Your task to perform on an android device: change timer sound Image 0: 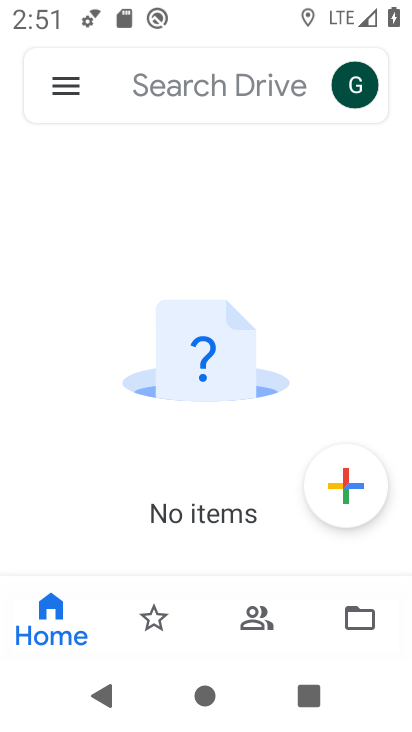
Step 0: press home button
Your task to perform on an android device: change timer sound Image 1: 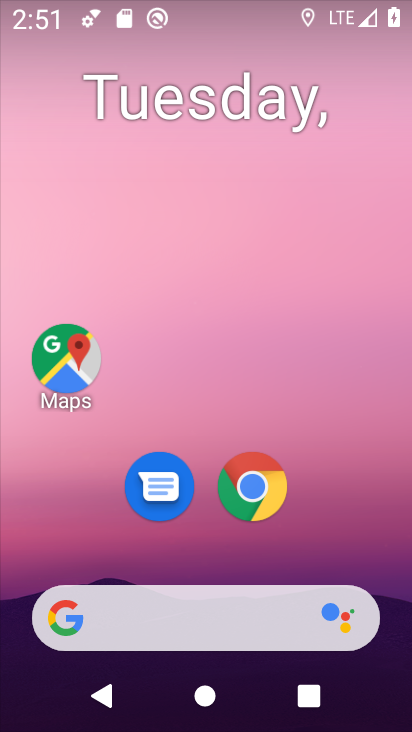
Step 1: drag from (358, 523) to (379, 72)
Your task to perform on an android device: change timer sound Image 2: 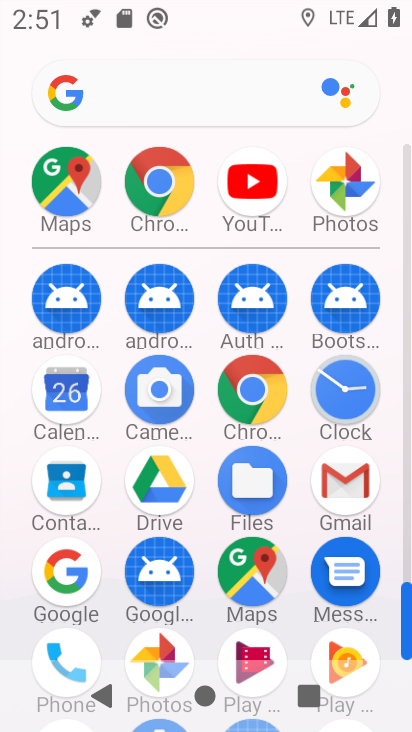
Step 2: drag from (401, 441) to (407, 302)
Your task to perform on an android device: change timer sound Image 3: 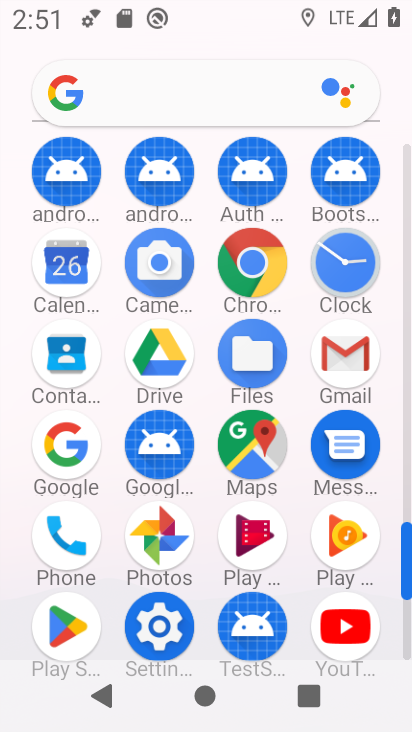
Step 3: drag from (396, 279) to (395, 368)
Your task to perform on an android device: change timer sound Image 4: 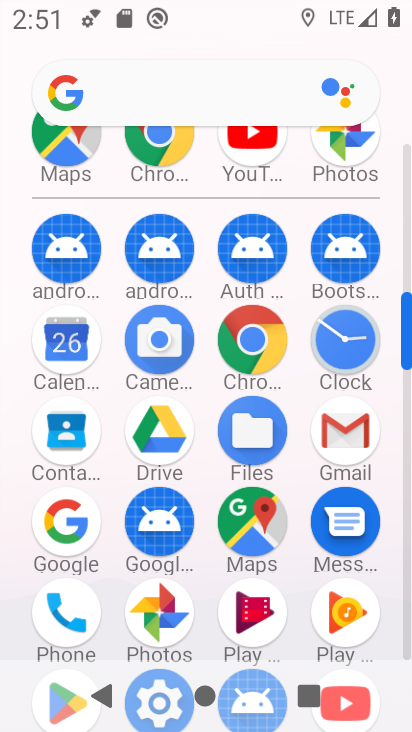
Step 4: drag from (398, 215) to (396, 321)
Your task to perform on an android device: change timer sound Image 5: 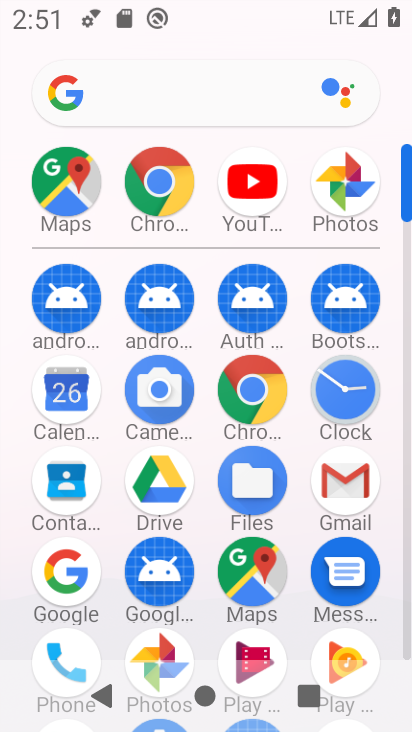
Step 5: drag from (393, 477) to (397, 363)
Your task to perform on an android device: change timer sound Image 6: 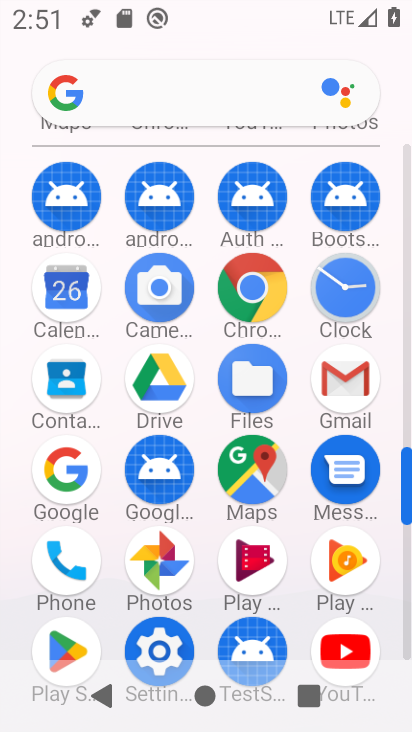
Step 6: drag from (388, 395) to (400, 342)
Your task to perform on an android device: change timer sound Image 7: 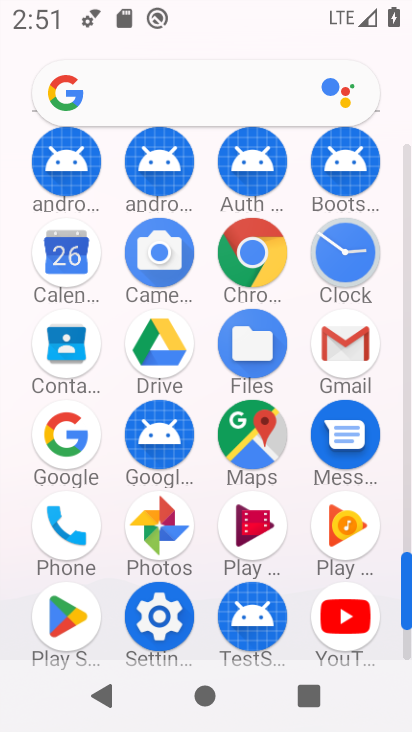
Step 7: click (346, 282)
Your task to perform on an android device: change timer sound Image 8: 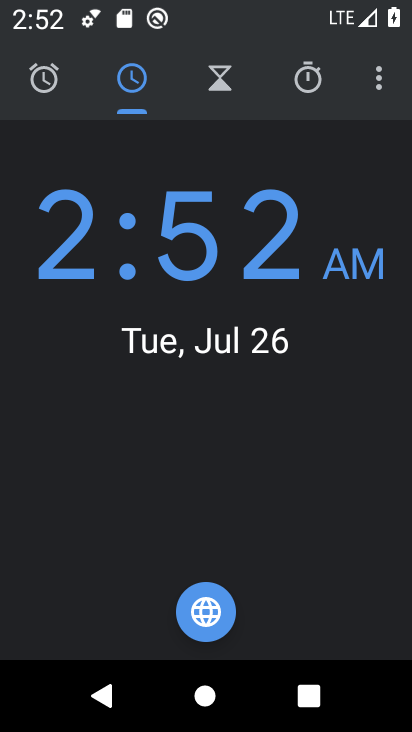
Step 8: click (376, 84)
Your task to perform on an android device: change timer sound Image 9: 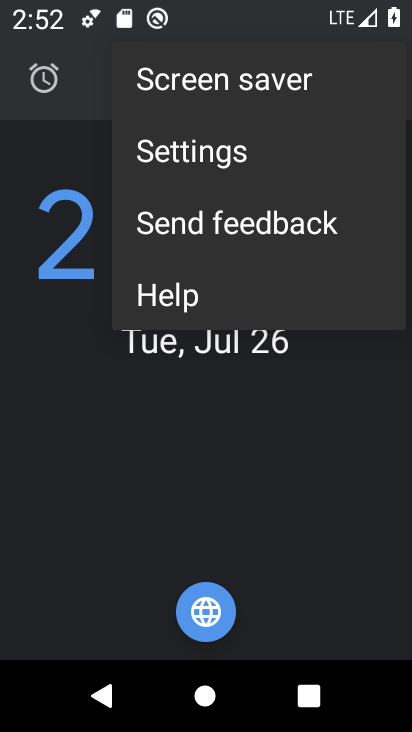
Step 9: click (208, 172)
Your task to perform on an android device: change timer sound Image 10: 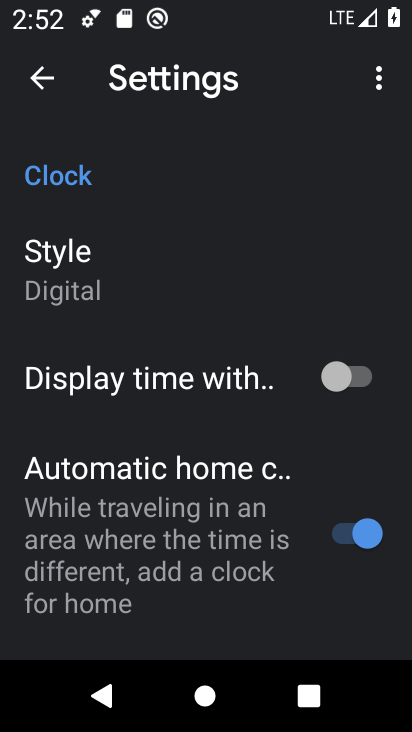
Step 10: drag from (236, 438) to (244, 368)
Your task to perform on an android device: change timer sound Image 11: 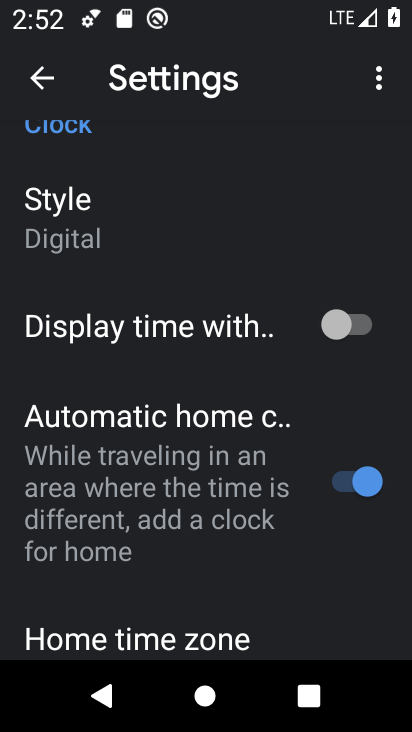
Step 11: drag from (239, 513) to (246, 387)
Your task to perform on an android device: change timer sound Image 12: 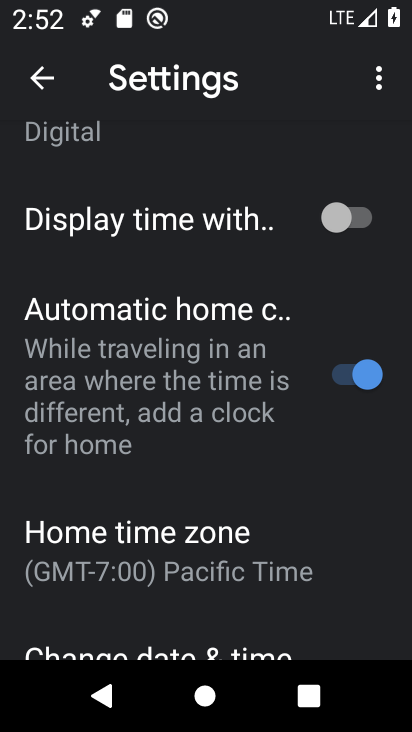
Step 12: drag from (268, 499) to (270, 410)
Your task to perform on an android device: change timer sound Image 13: 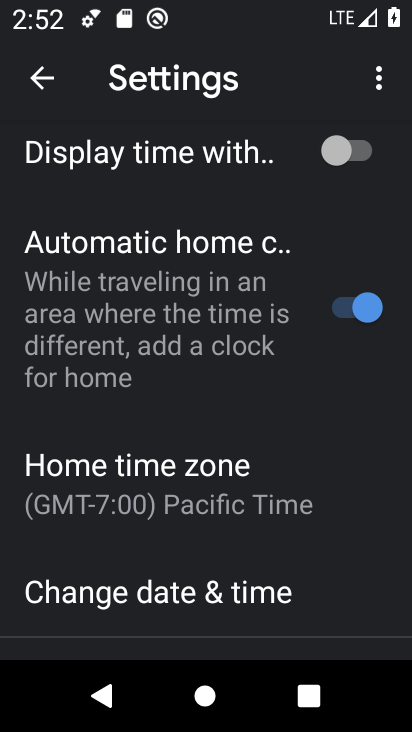
Step 13: drag from (265, 495) to (287, 361)
Your task to perform on an android device: change timer sound Image 14: 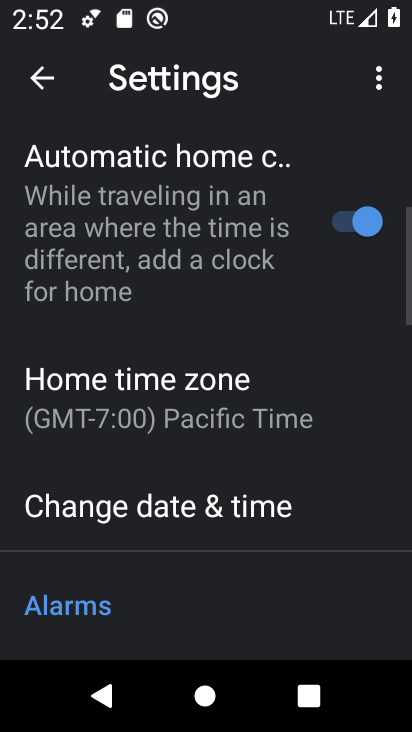
Step 14: drag from (269, 523) to (275, 410)
Your task to perform on an android device: change timer sound Image 15: 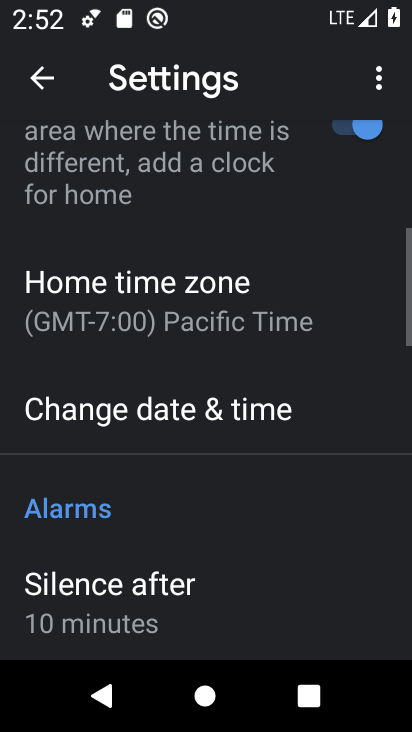
Step 15: drag from (262, 537) to (270, 432)
Your task to perform on an android device: change timer sound Image 16: 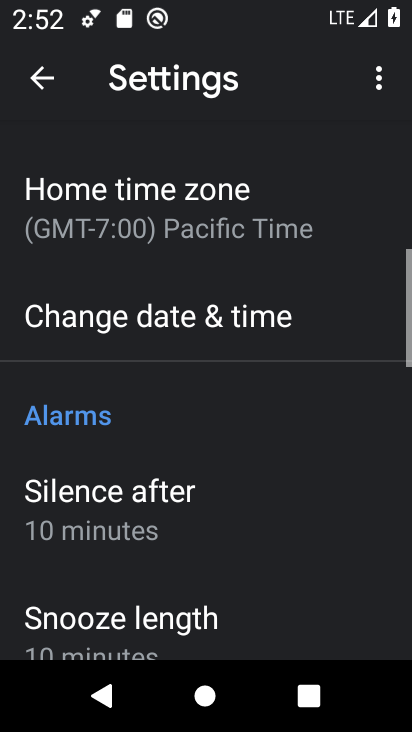
Step 16: drag from (267, 531) to (282, 463)
Your task to perform on an android device: change timer sound Image 17: 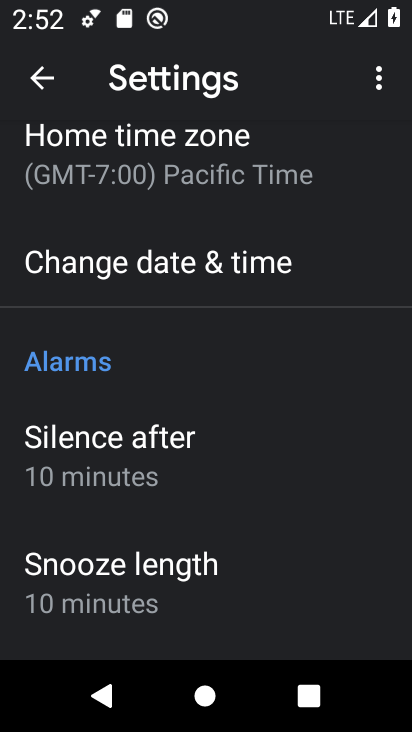
Step 17: drag from (277, 526) to (291, 445)
Your task to perform on an android device: change timer sound Image 18: 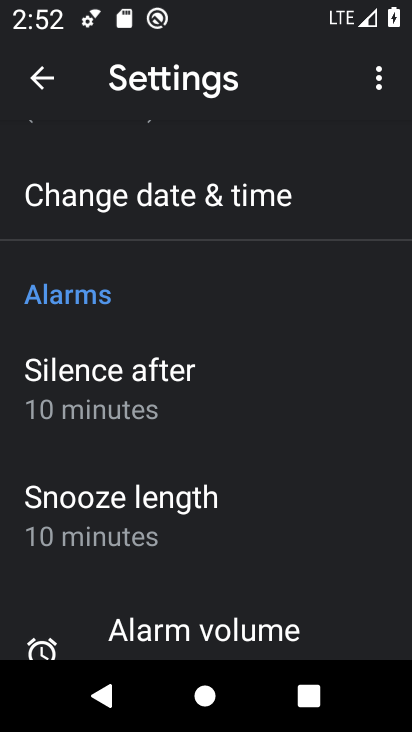
Step 18: drag from (298, 524) to (305, 444)
Your task to perform on an android device: change timer sound Image 19: 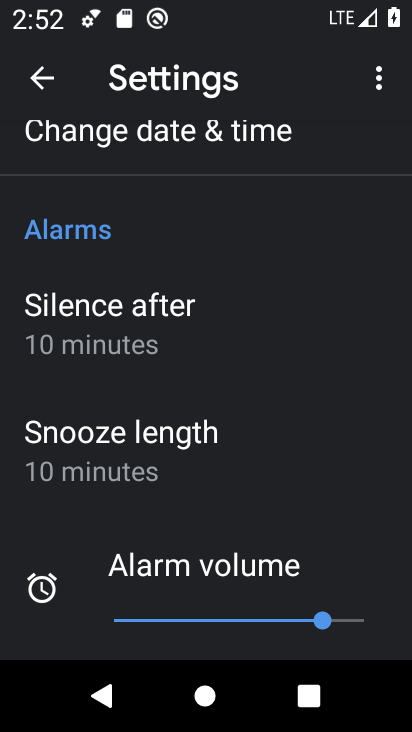
Step 19: drag from (319, 524) to (330, 396)
Your task to perform on an android device: change timer sound Image 20: 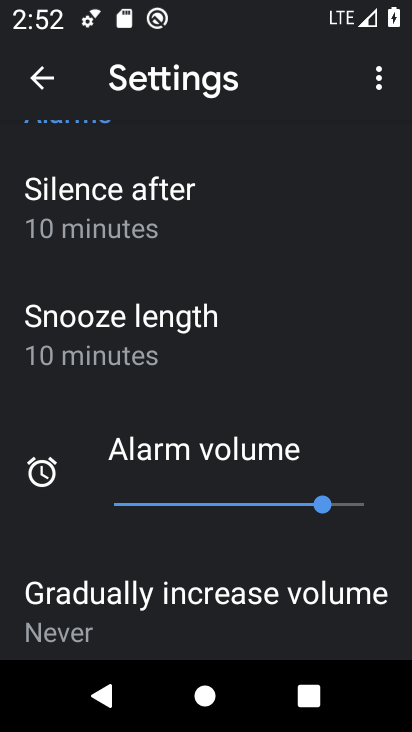
Step 20: drag from (335, 544) to (341, 423)
Your task to perform on an android device: change timer sound Image 21: 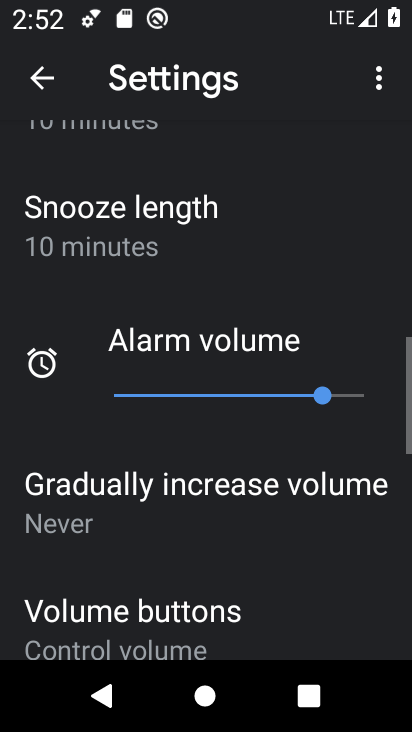
Step 21: drag from (329, 563) to (336, 451)
Your task to perform on an android device: change timer sound Image 22: 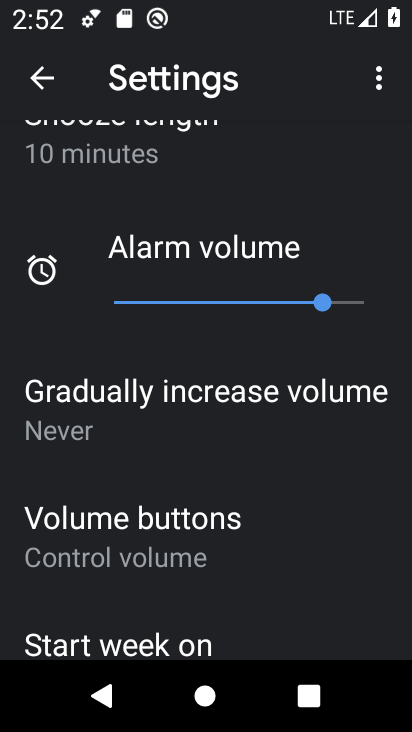
Step 22: drag from (327, 548) to (331, 439)
Your task to perform on an android device: change timer sound Image 23: 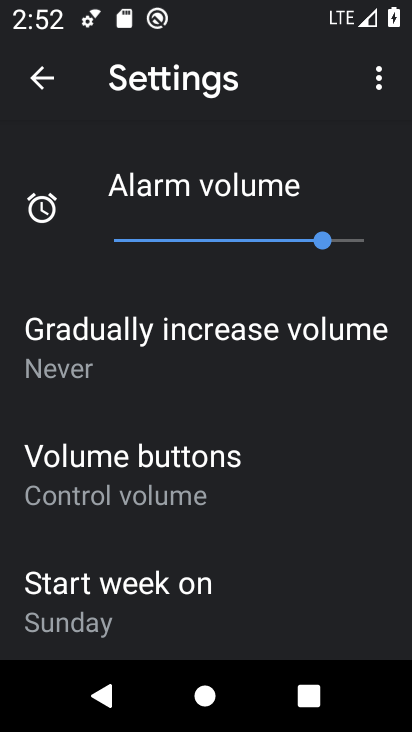
Step 23: drag from (330, 556) to (331, 452)
Your task to perform on an android device: change timer sound Image 24: 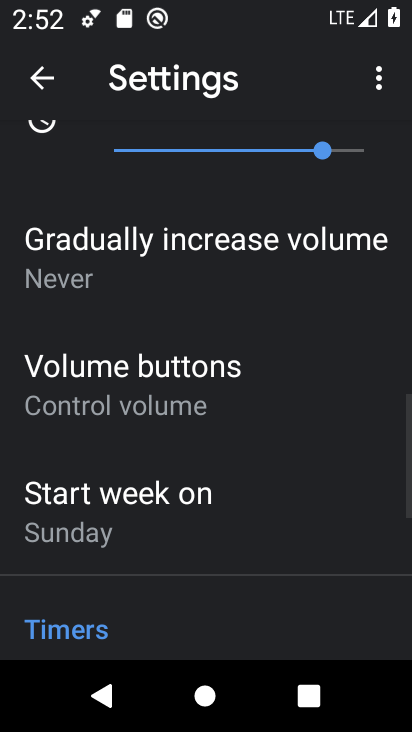
Step 24: drag from (329, 590) to (328, 471)
Your task to perform on an android device: change timer sound Image 25: 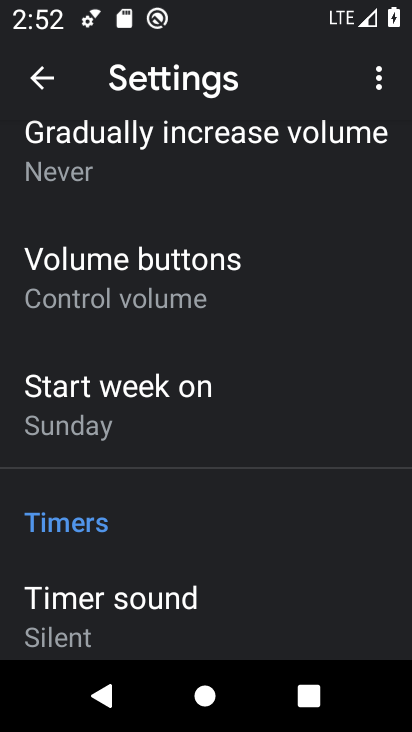
Step 25: drag from (307, 551) to (308, 435)
Your task to perform on an android device: change timer sound Image 26: 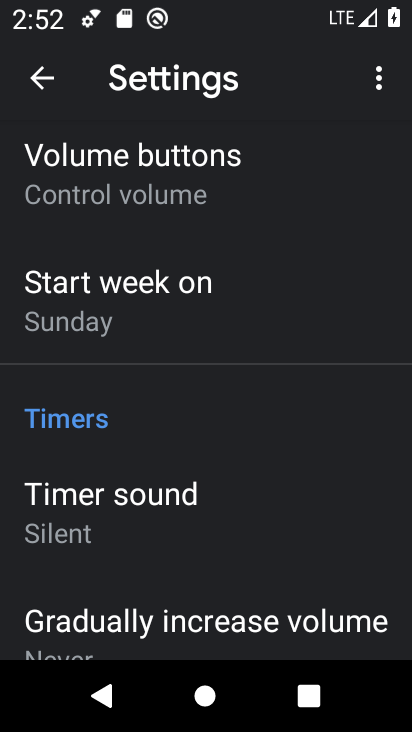
Step 26: click (199, 534)
Your task to perform on an android device: change timer sound Image 27: 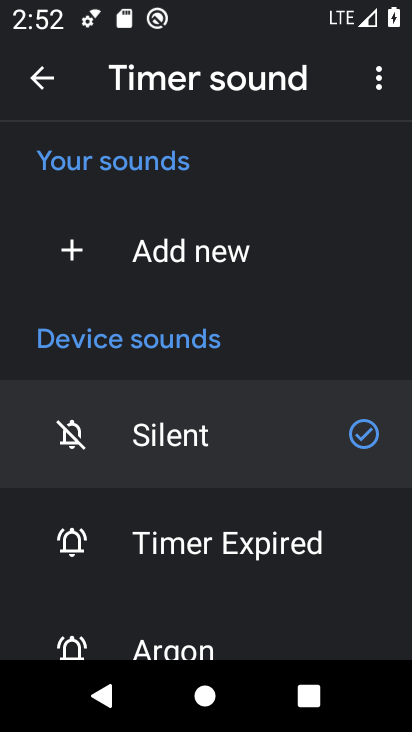
Step 27: drag from (258, 593) to (317, 267)
Your task to perform on an android device: change timer sound Image 28: 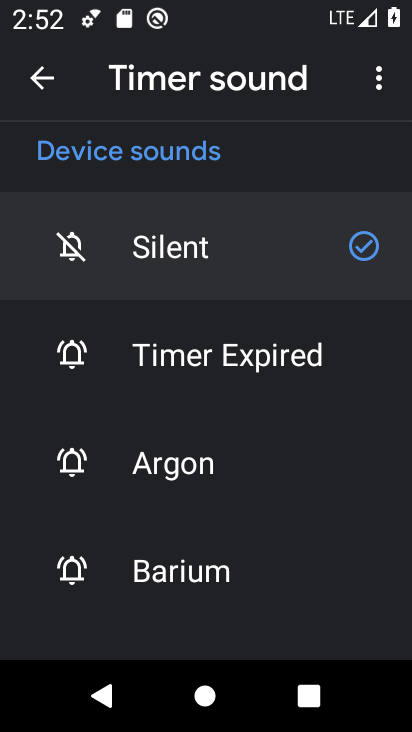
Step 28: click (281, 345)
Your task to perform on an android device: change timer sound Image 29: 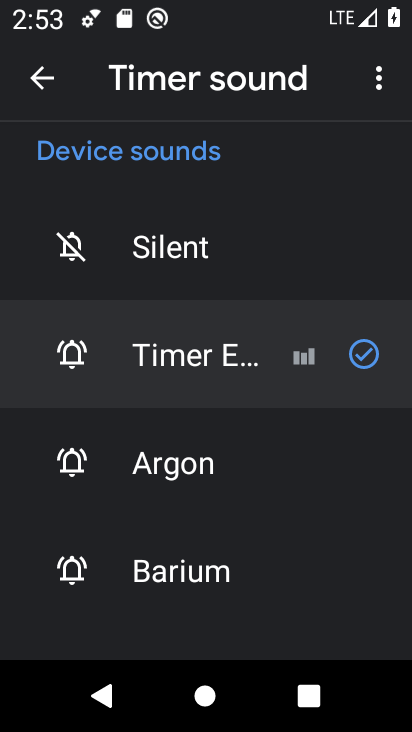
Step 29: task complete